Your task to perform on an android device: Open battery settings Image 0: 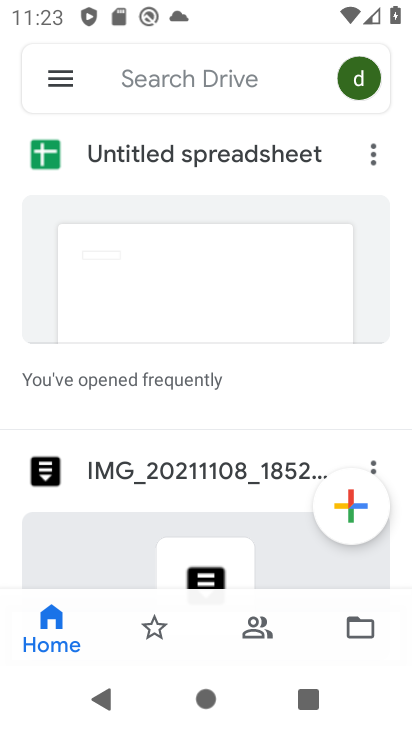
Step 0: press home button
Your task to perform on an android device: Open battery settings Image 1: 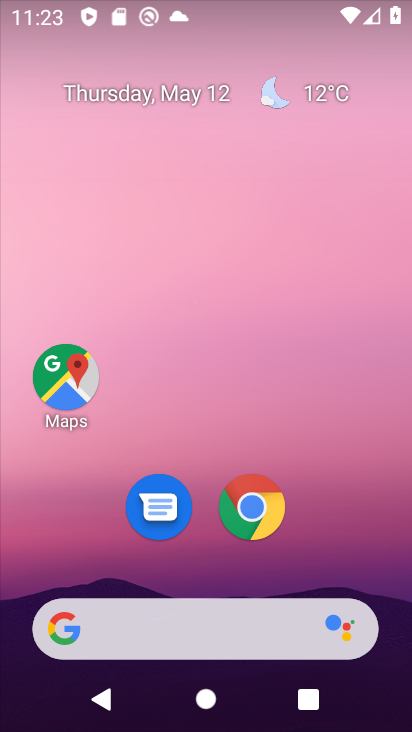
Step 1: drag from (207, 578) to (224, 27)
Your task to perform on an android device: Open battery settings Image 2: 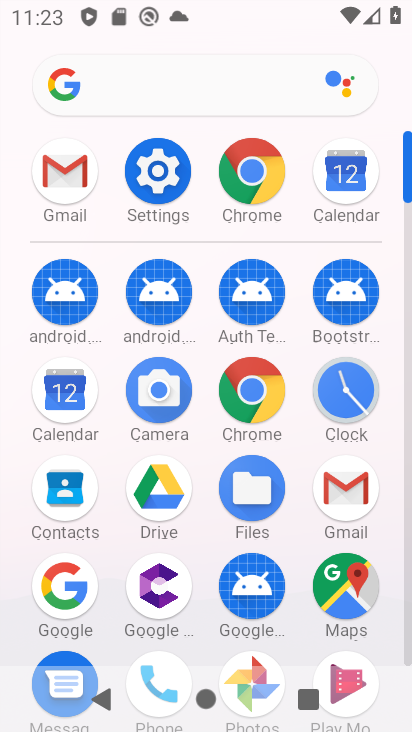
Step 2: click (174, 199)
Your task to perform on an android device: Open battery settings Image 3: 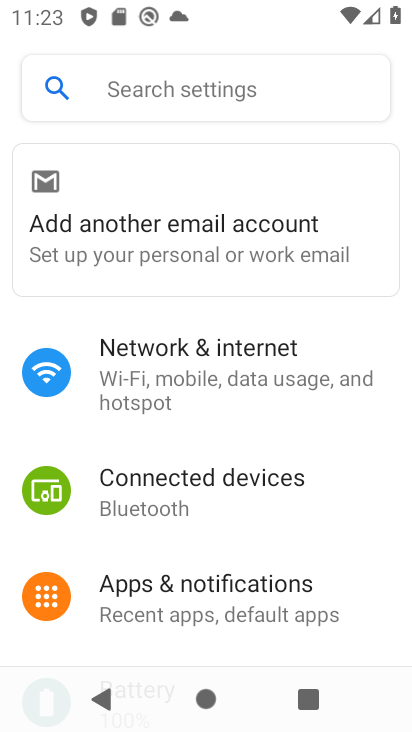
Step 3: drag from (193, 521) to (271, 240)
Your task to perform on an android device: Open battery settings Image 4: 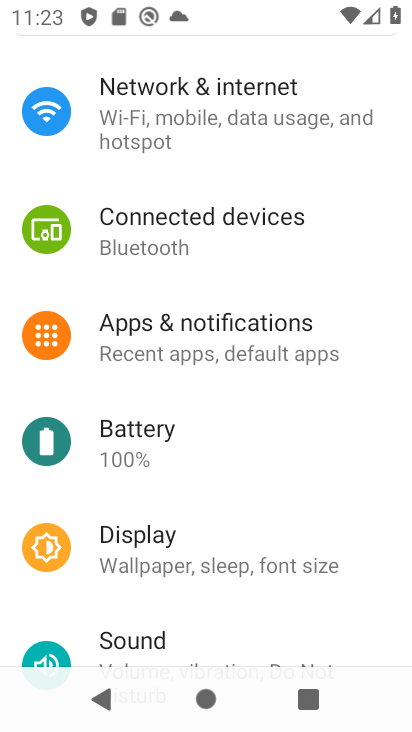
Step 4: click (172, 447)
Your task to perform on an android device: Open battery settings Image 5: 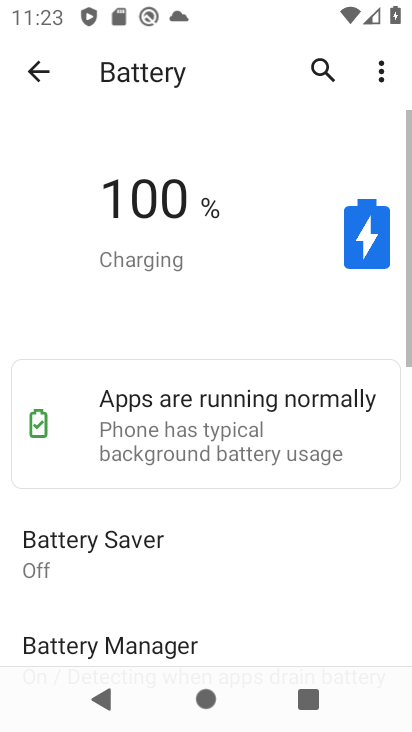
Step 5: task complete